Your task to perform on an android device: turn off wifi Image 0: 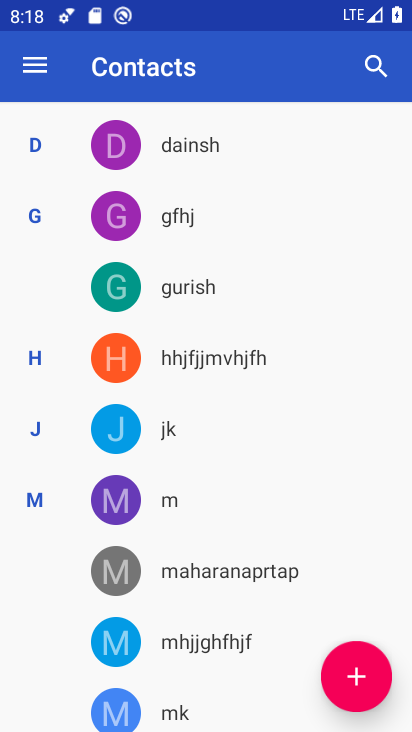
Step 0: press home button
Your task to perform on an android device: turn off wifi Image 1: 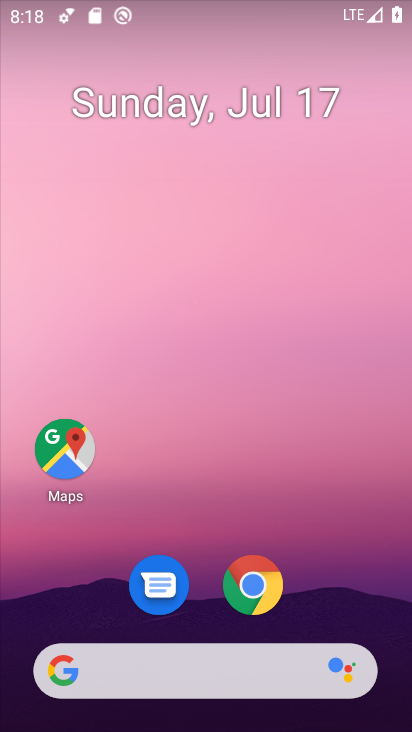
Step 1: drag from (320, 545) to (289, 51)
Your task to perform on an android device: turn off wifi Image 2: 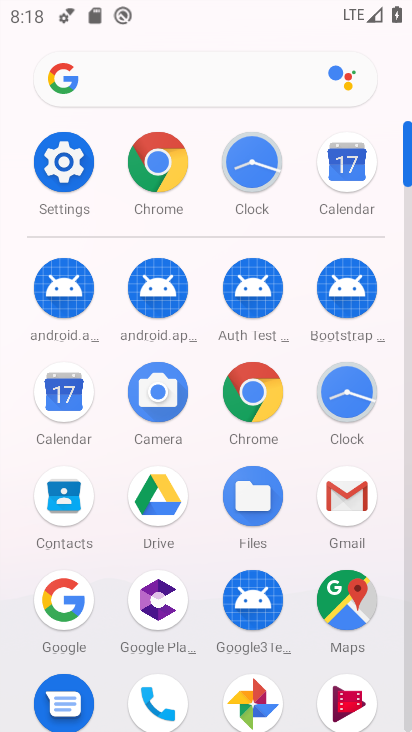
Step 2: click (64, 156)
Your task to perform on an android device: turn off wifi Image 3: 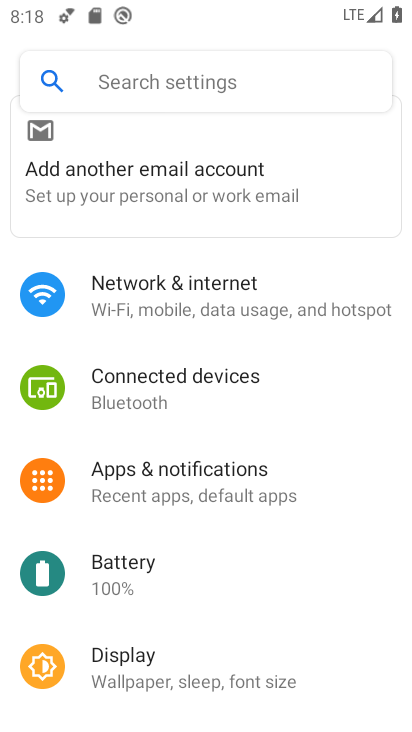
Step 3: click (180, 280)
Your task to perform on an android device: turn off wifi Image 4: 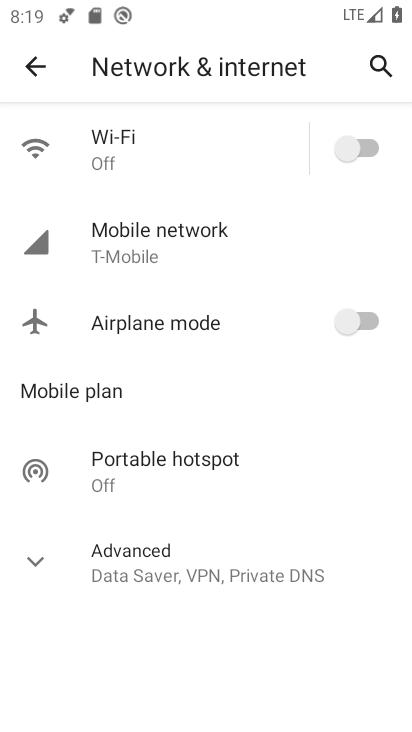
Step 4: task complete